Your task to perform on an android device: Search for the new ikea dresser Image 0: 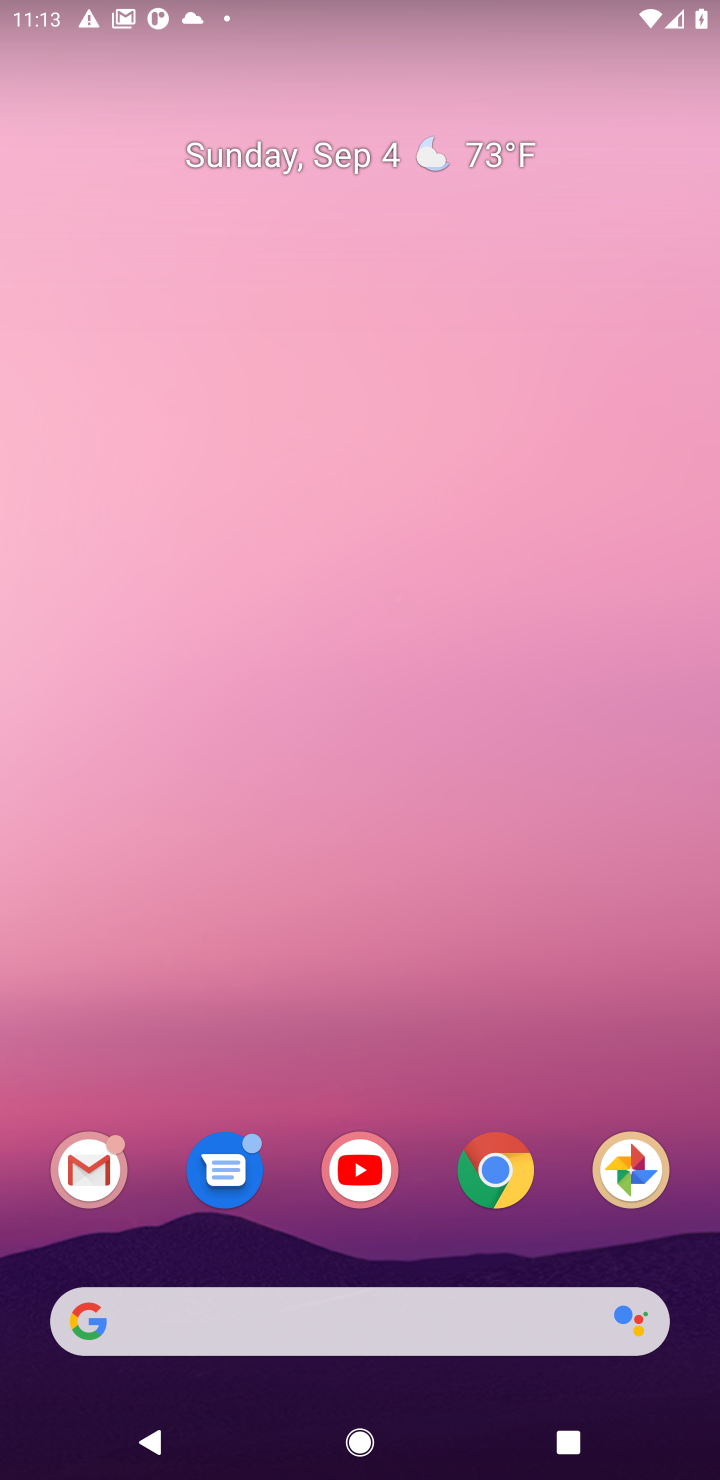
Step 0: drag from (384, 241) to (665, 1094)
Your task to perform on an android device: Search for the new ikea dresser Image 1: 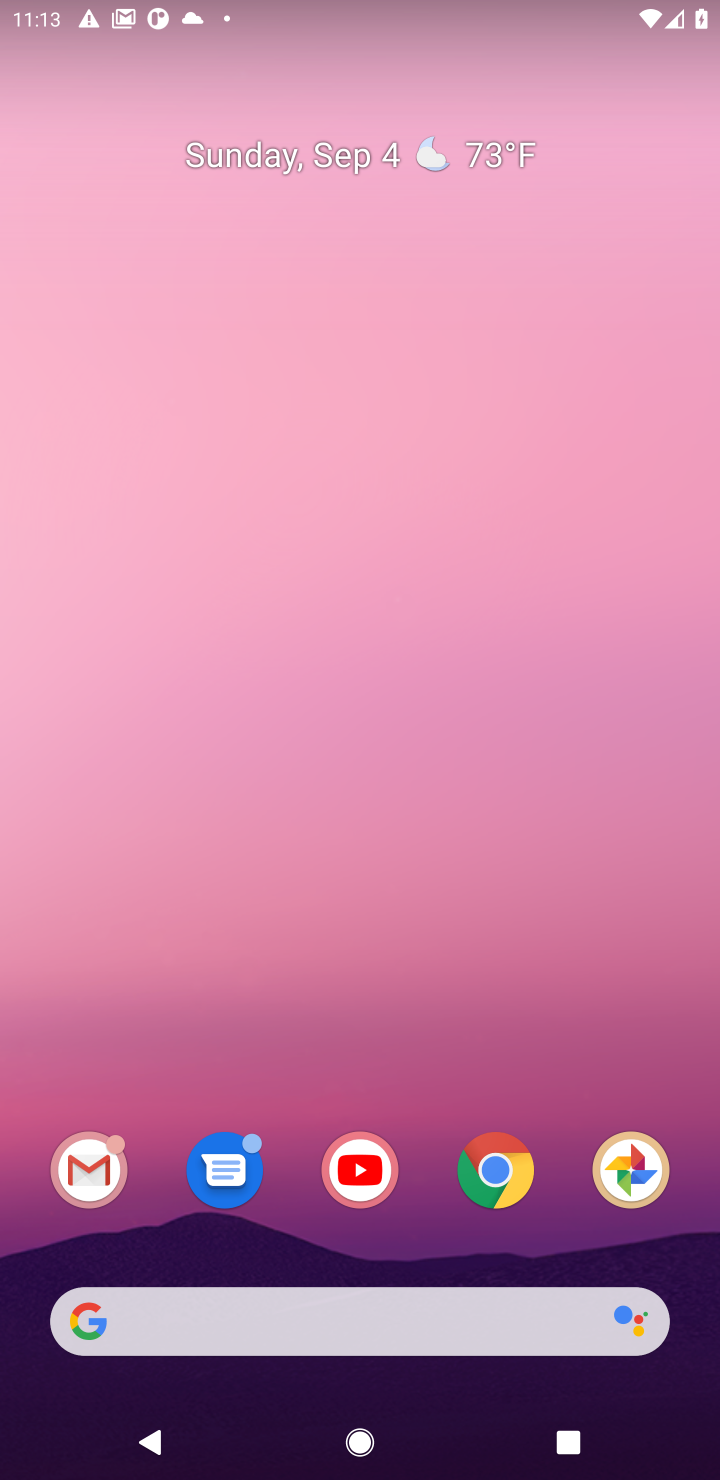
Step 1: click (281, 1)
Your task to perform on an android device: Search for the new ikea dresser Image 2: 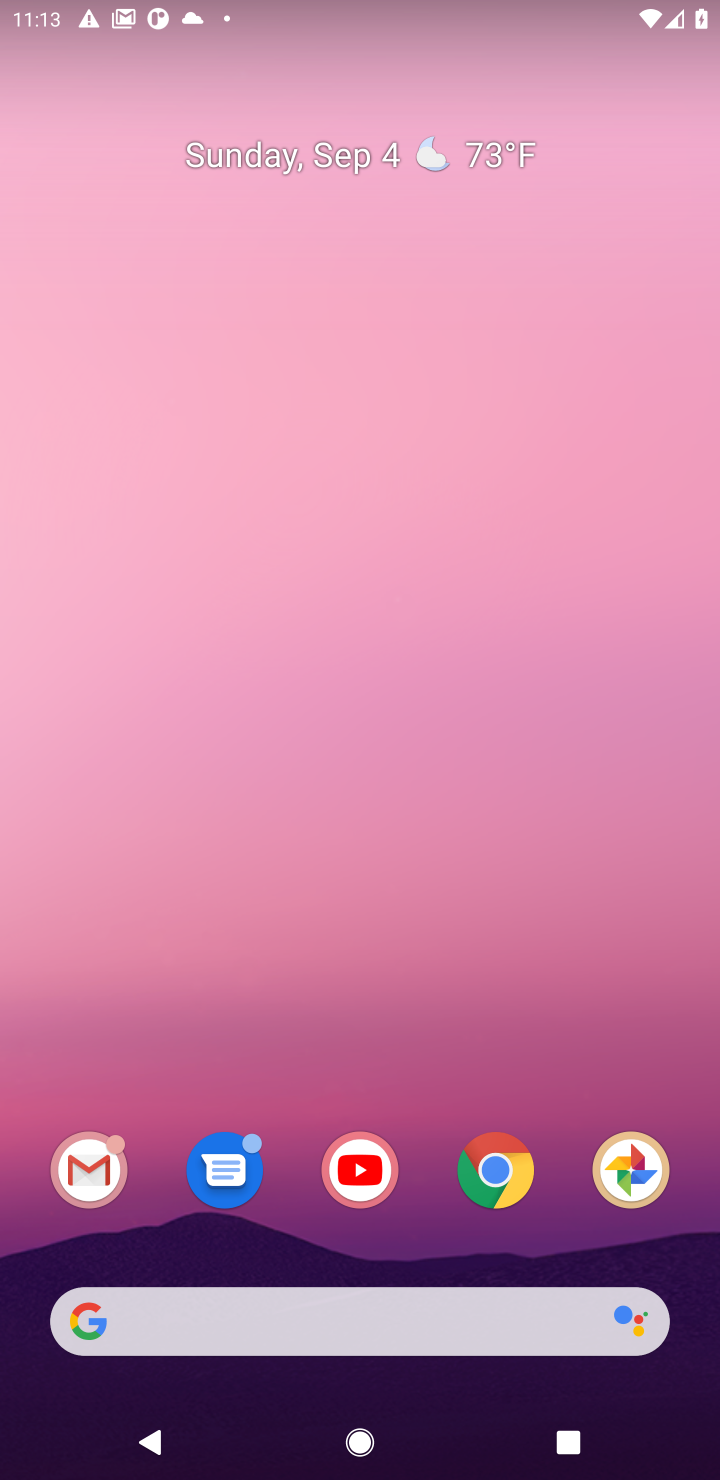
Step 2: drag from (357, 1221) to (357, 1)
Your task to perform on an android device: Search for the new ikea dresser Image 3: 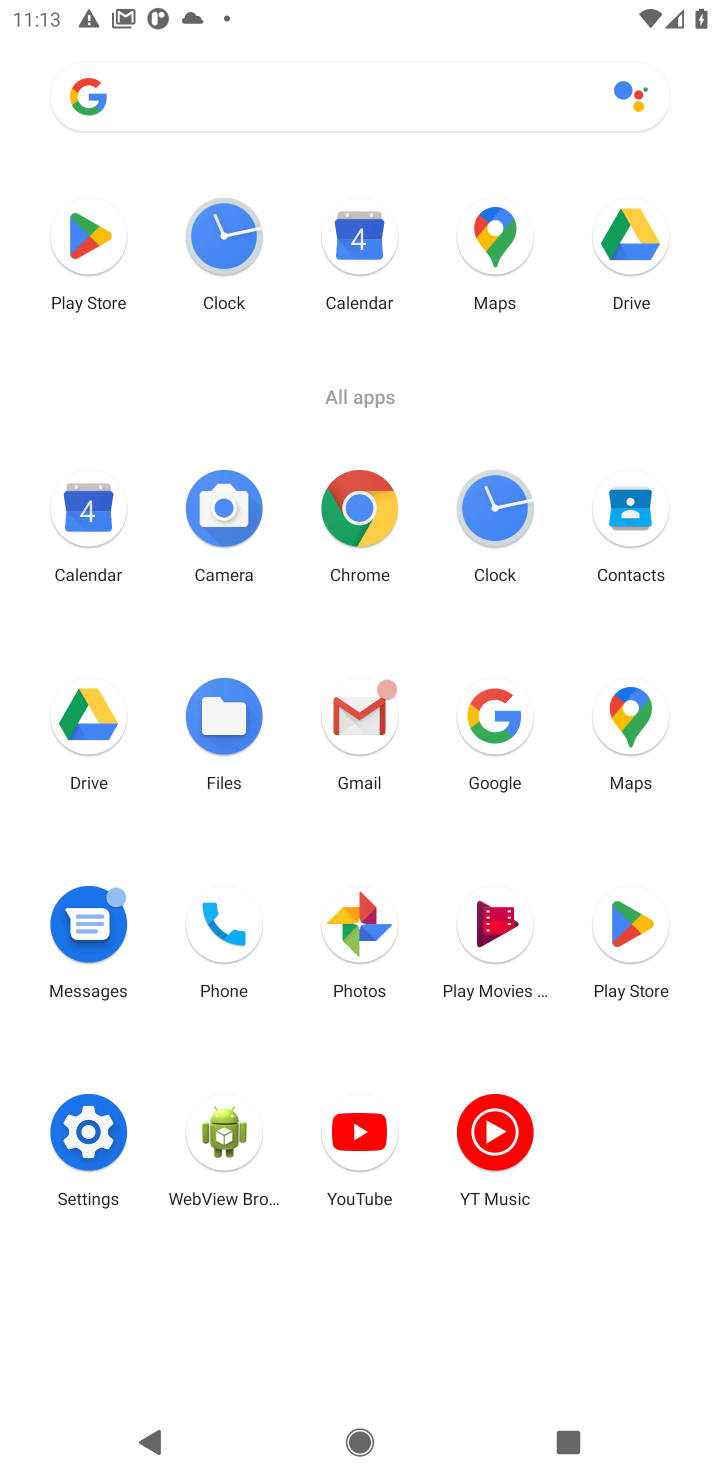
Step 3: click (348, 547)
Your task to perform on an android device: Search for the new ikea dresser Image 4: 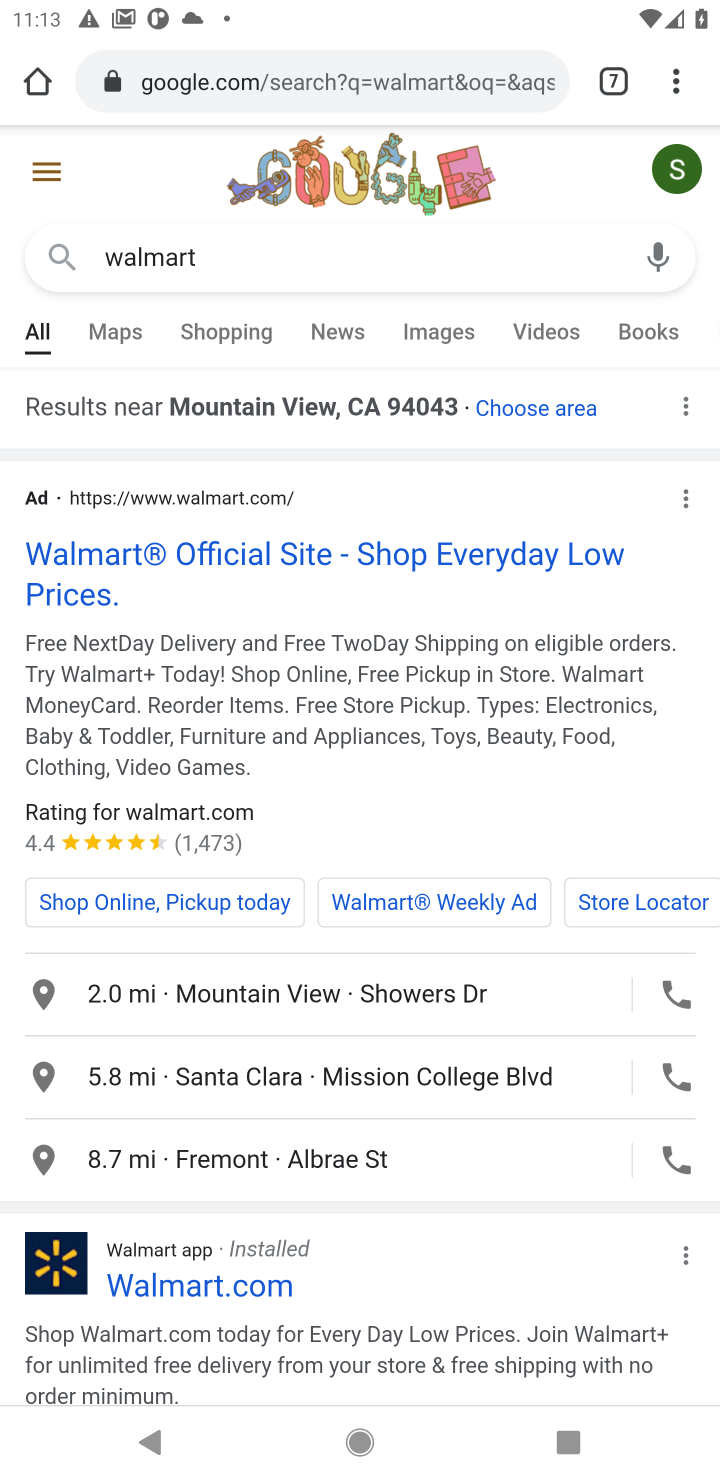
Step 4: click (365, 239)
Your task to perform on an android device: Search for the new ikea dresser Image 5: 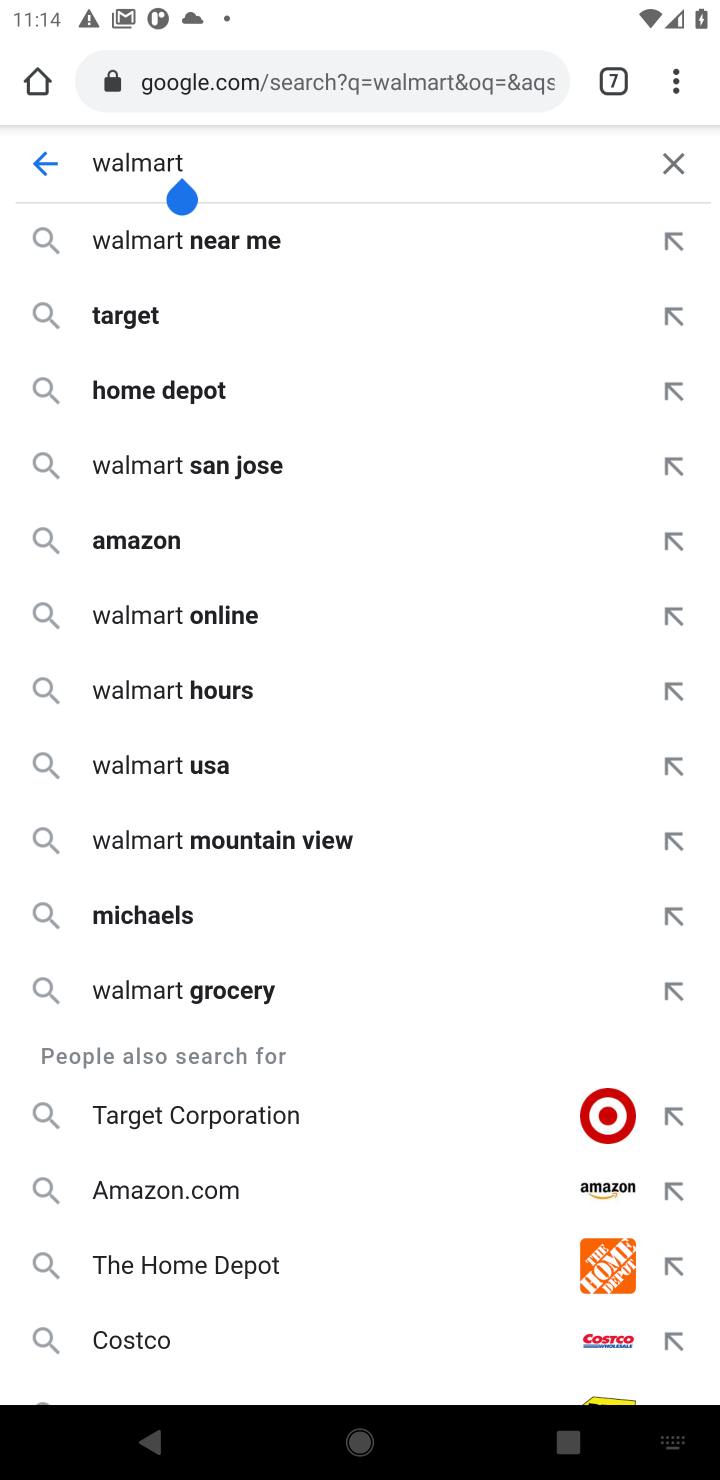
Step 5: click (684, 157)
Your task to perform on an android device: Search for the new ikea dresser Image 6: 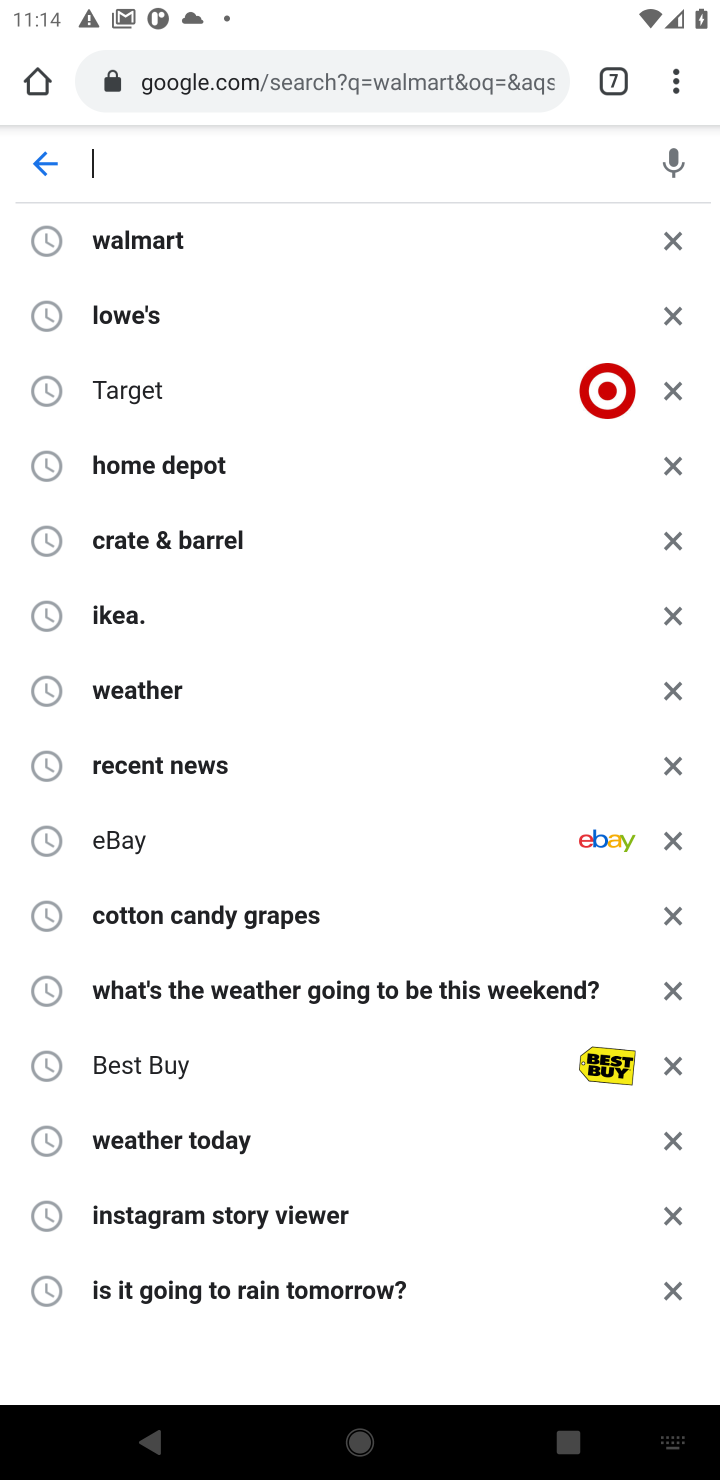
Step 6: type "the new ikea dresser"
Your task to perform on an android device: Search for the new ikea dresser Image 7: 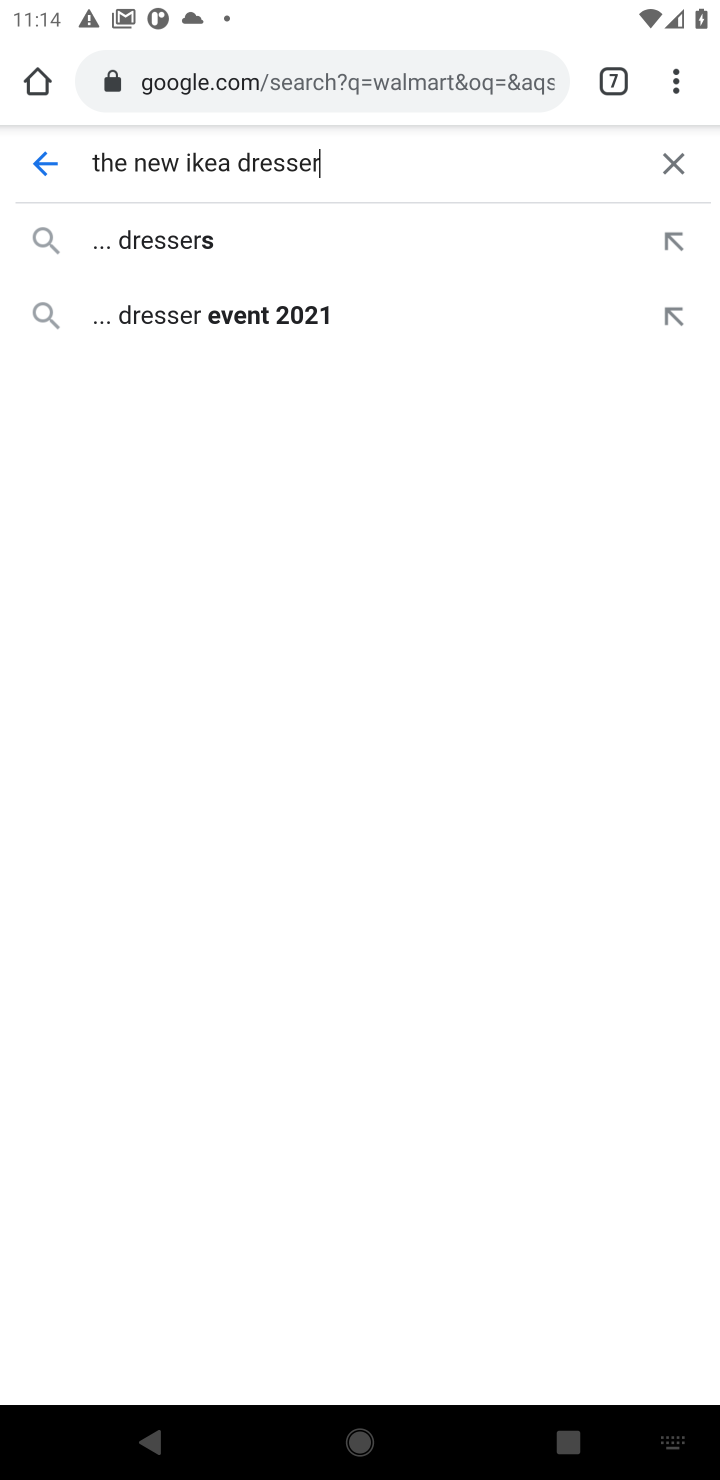
Step 7: click (229, 246)
Your task to perform on an android device: Search for the new ikea dresser Image 8: 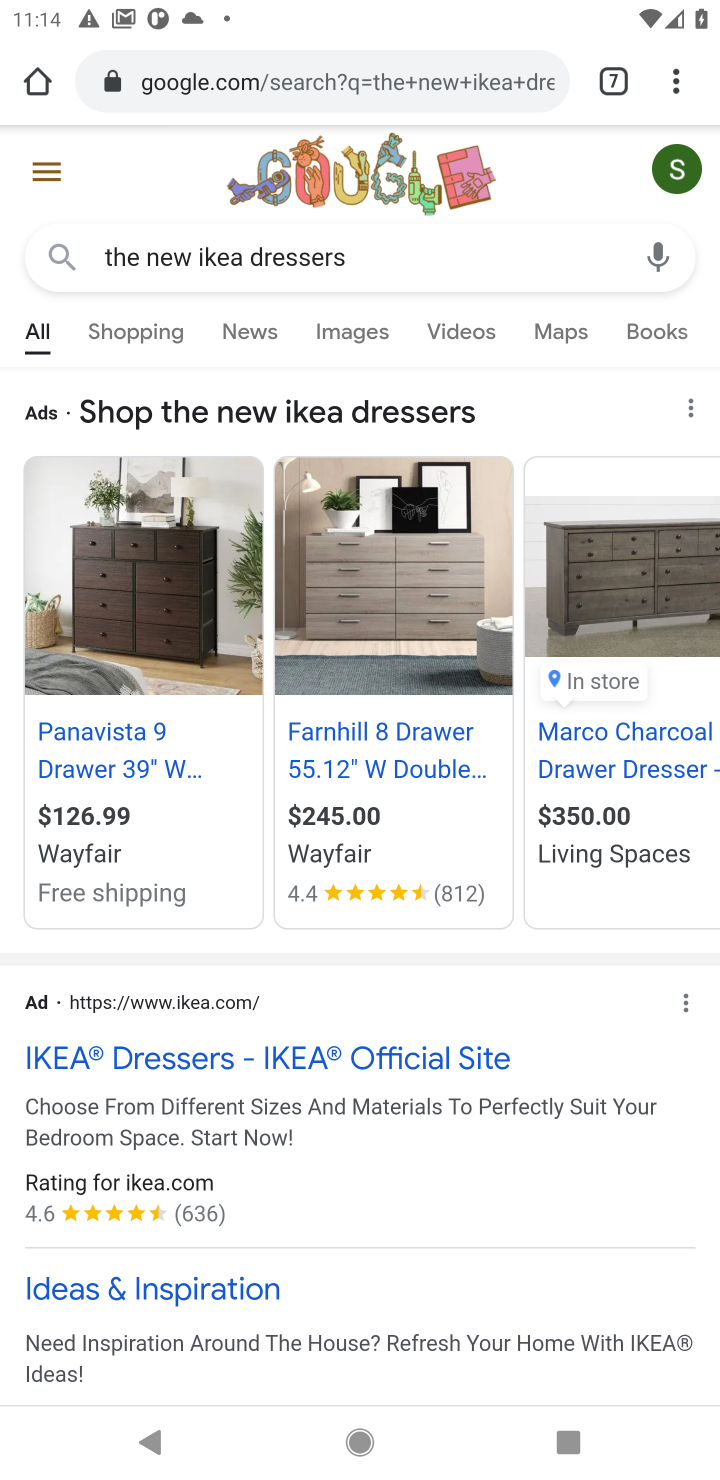
Step 8: task complete